Your task to perform on an android device: delete browsing data in the chrome app Image 0: 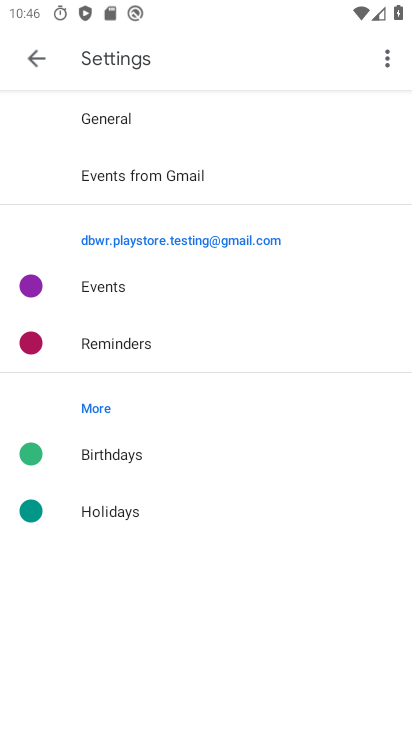
Step 0: click (400, 352)
Your task to perform on an android device: delete browsing data in the chrome app Image 1: 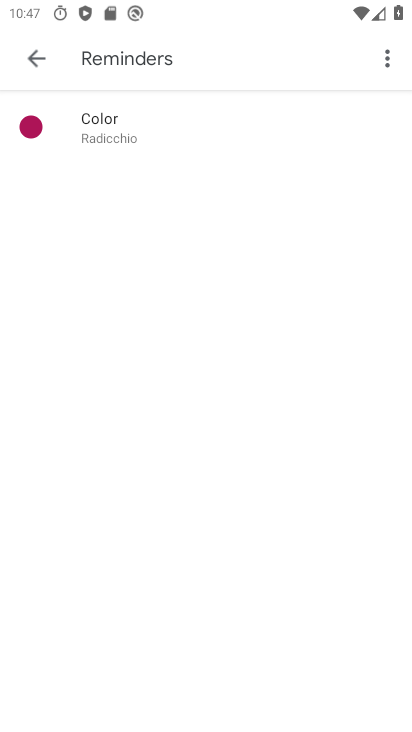
Step 1: press home button
Your task to perform on an android device: delete browsing data in the chrome app Image 2: 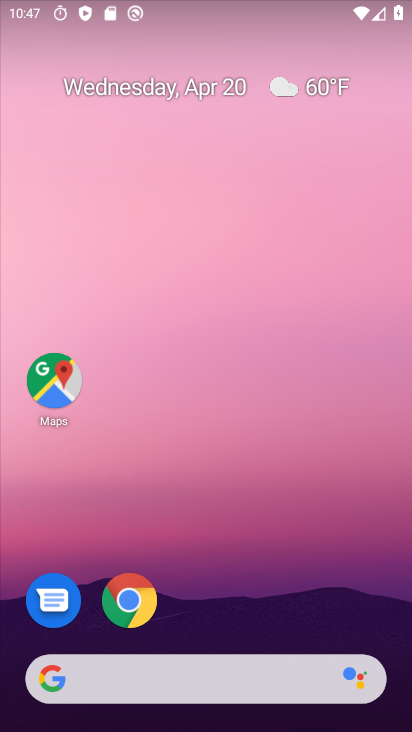
Step 2: drag from (191, 613) to (171, 115)
Your task to perform on an android device: delete browsing data in the chrome app Image 3: 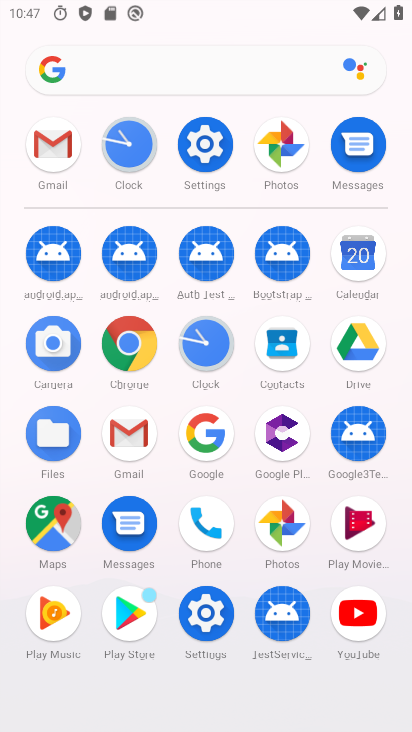
Step 3: click (126, 347)
Your task to perform on an android device: delete browsing data in the chrome app Image 4: 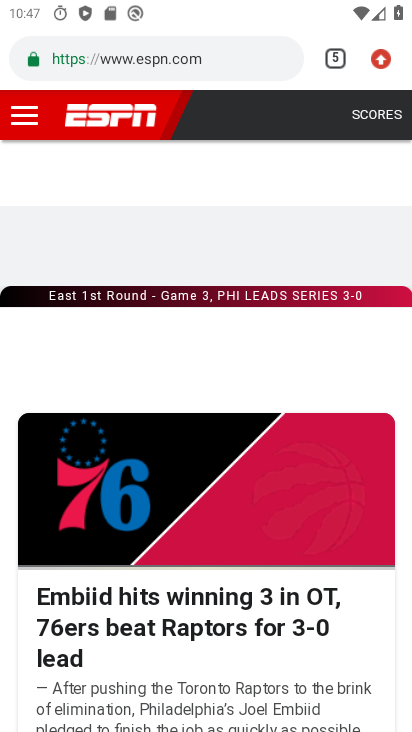
Step 4: click (386, 56)
Your task to perform on an android device: delete browsing data in the chrome app Image 5: 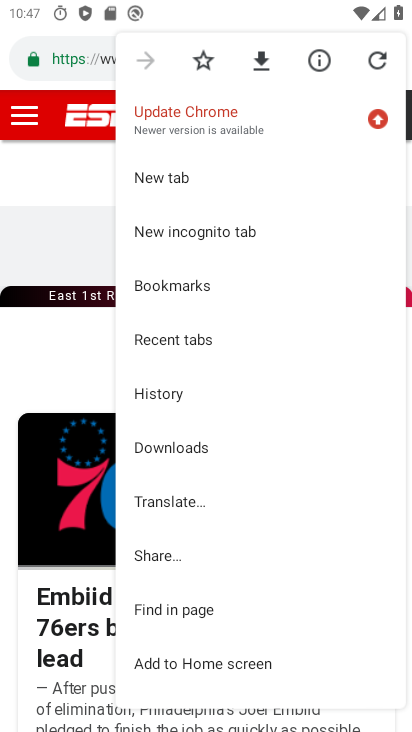
Step 5: click (169, 399)
Your task to perform on an android device: delete browsing data in the chrome app Image 6: 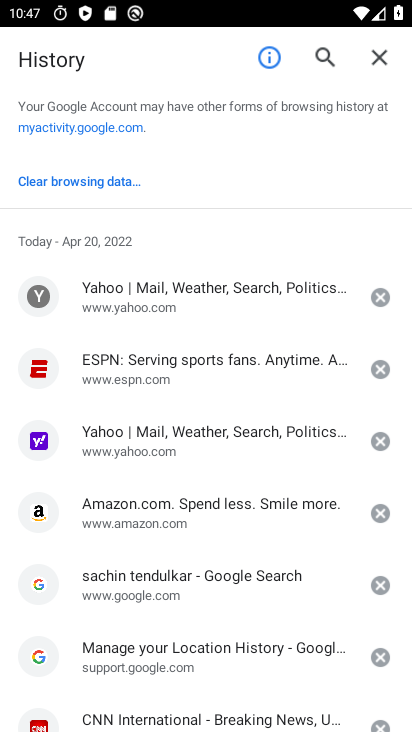
Step 6: click (79, 181)
Your task to perform on an android device: delete browsing data in the chrome app Image 7: 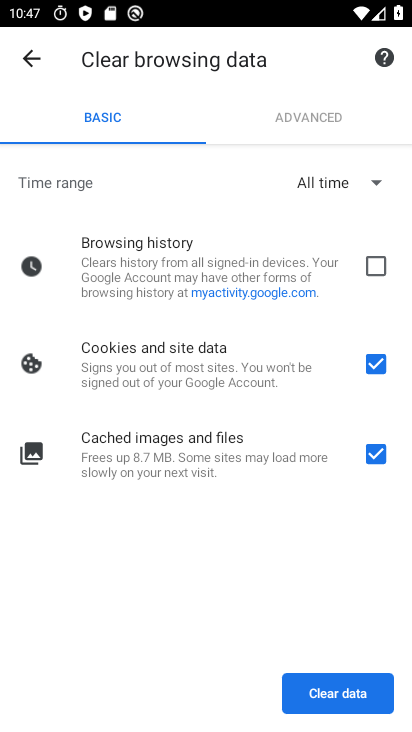
Step 7: click (382, 261)
Your task to perform on an android device: delete browsing data in the chrome app Image 8: 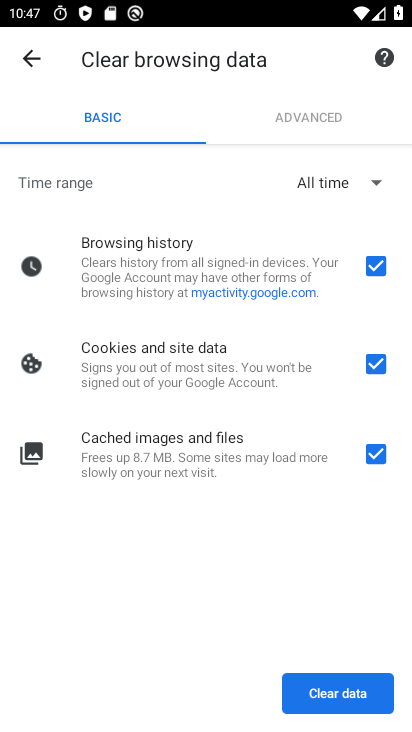
Step 8: click (362, 688)
Your task to perform on an android device: delete browsing data in the chrome app Image 9: 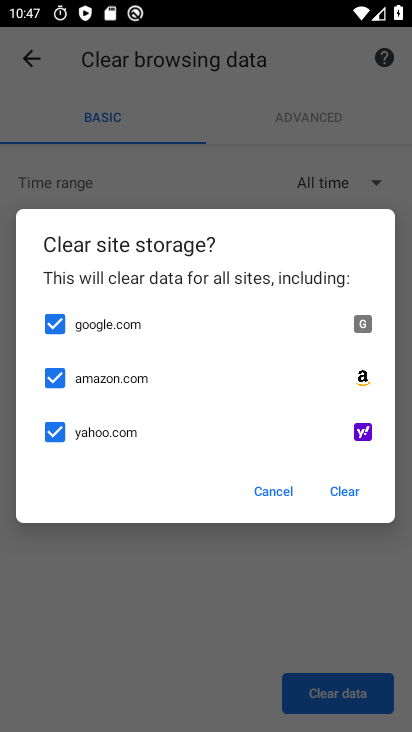
Step 9: click (355, 491)
Your task to perform on an android device: delete browsing data in the chrome app Image 10: 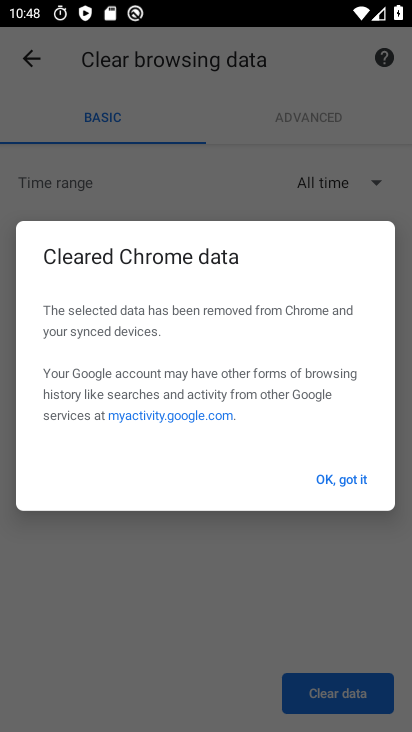
Step 10: click (362, 486)
Your task to perform on an android device: delete browsing data in the chrome app Image 11: 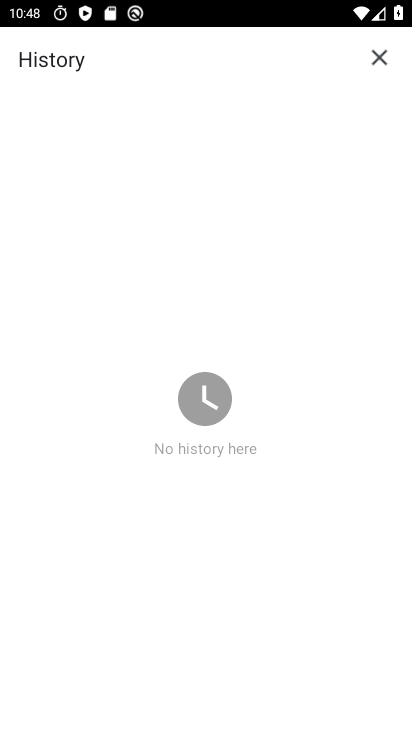
Step 11: task complete